Your task to perform on an android device: Add macbook pro to the cart on ebay.com Image 0: 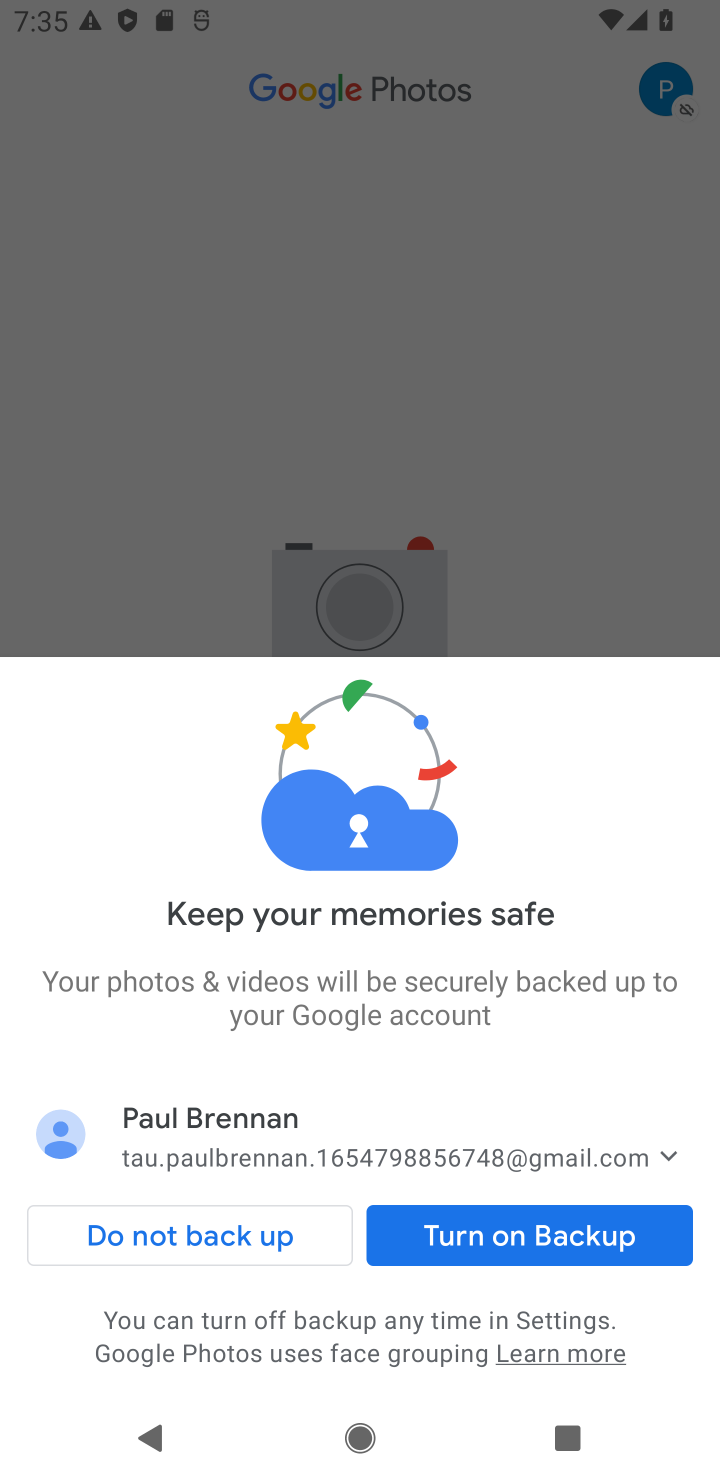
Step 0: press home button
Your task to perform on an android device: Add macbook pro to the cart on ebay.com Image 1: 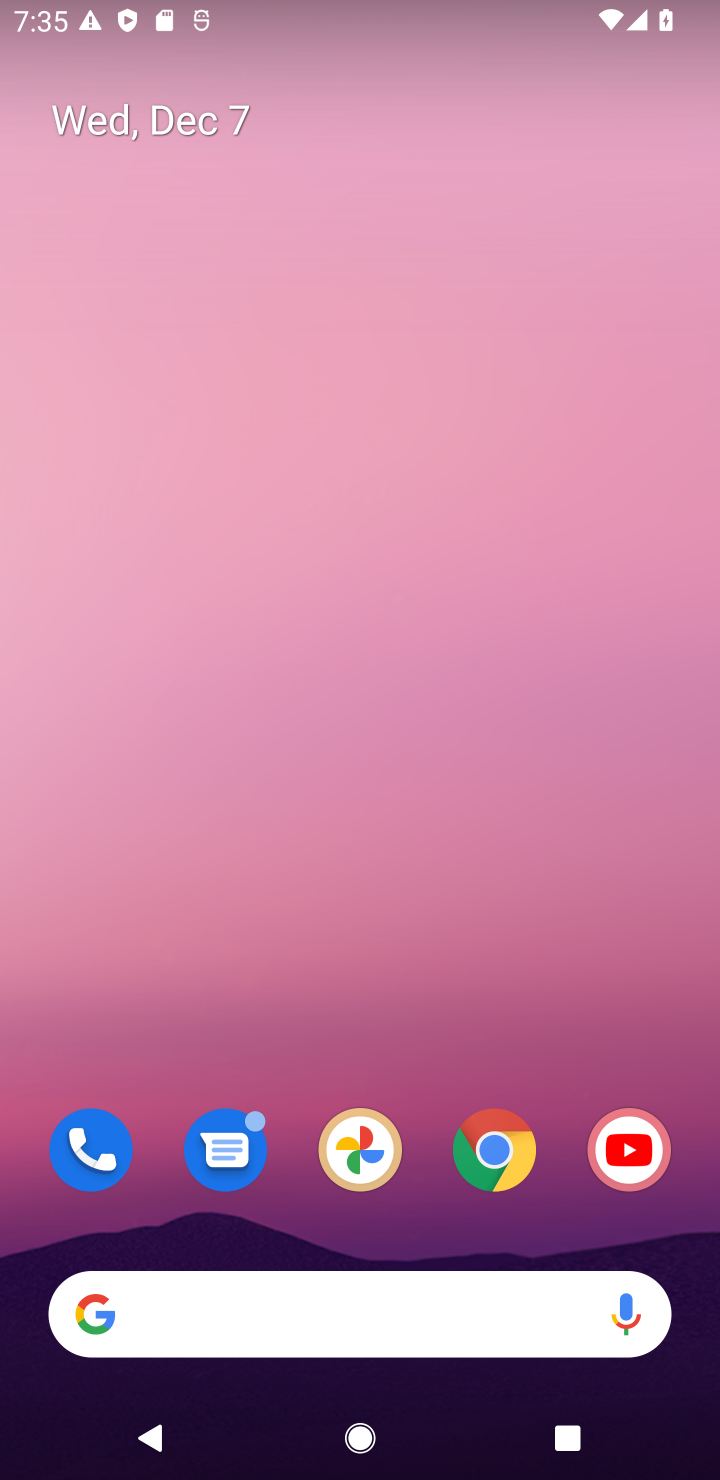
Step 1: click (494, 1122)
Your task to perform on an android device: Add macbook pro to the cart on ebay.com Image 2: 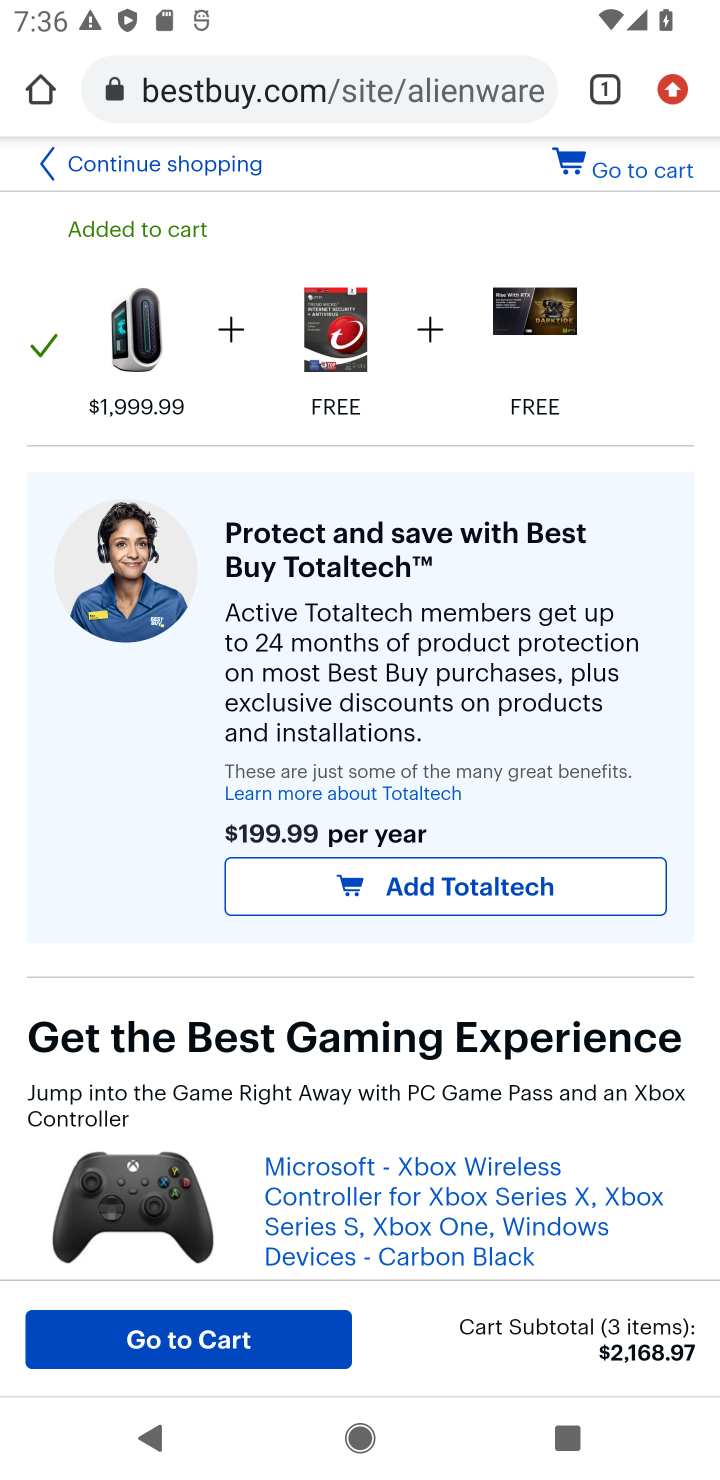
Step 2: click (367, 90)
Your task to perform on an android device: Add macbook pro to the cart on ebay.com Image 3: 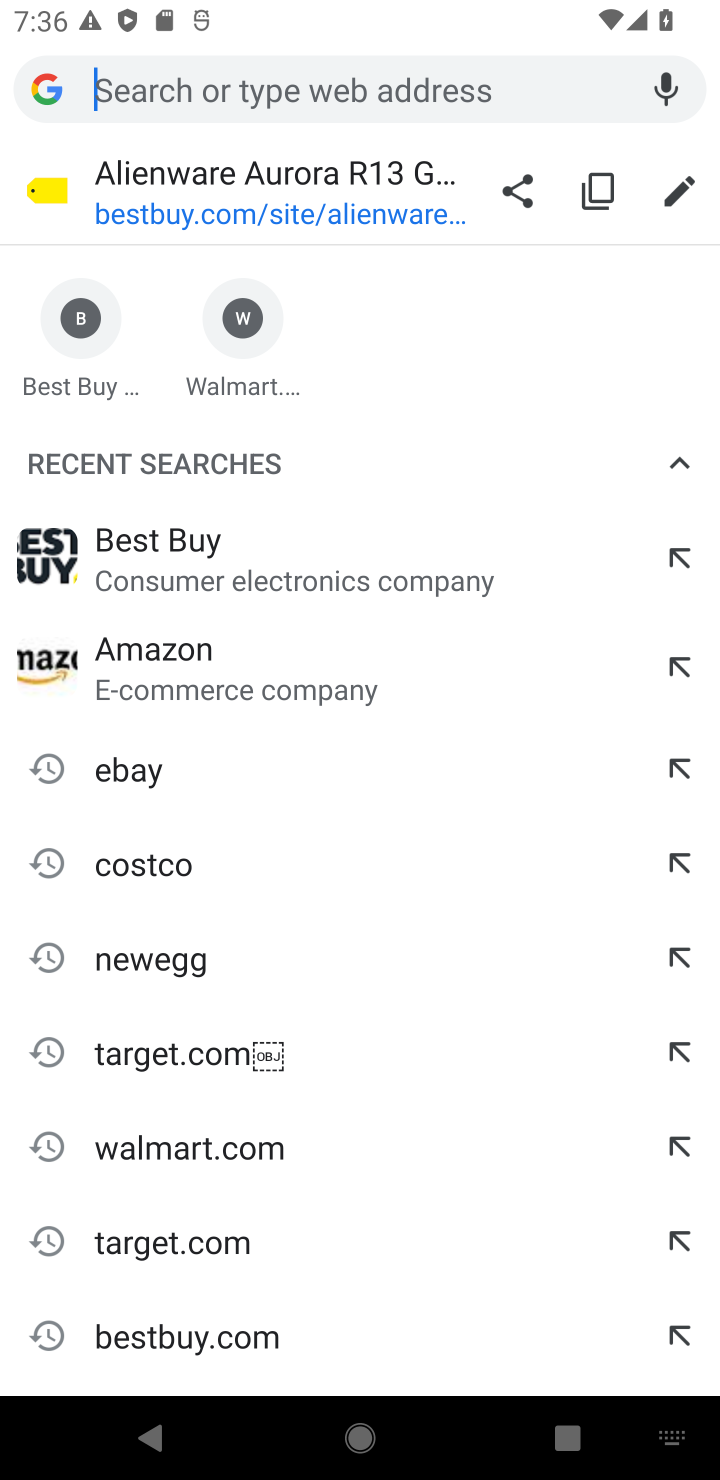
Step 3: click (144, 775)
Your task to perform on an android device: Add macbook pro to the cart on ebay.com Image 4: 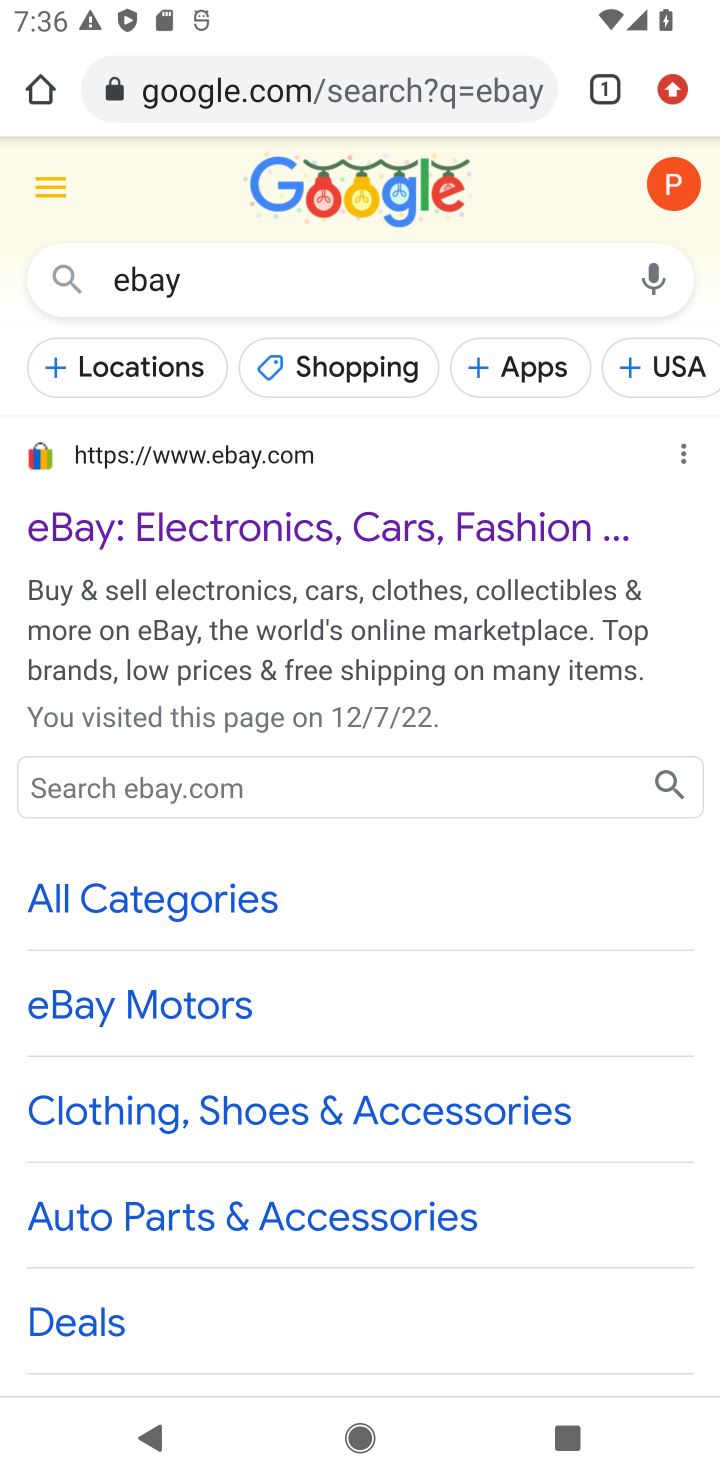
Step 4: click (178, 523)
Your task to perform on an android device: Add macbook pro to the cart on ebay.com Image 5: 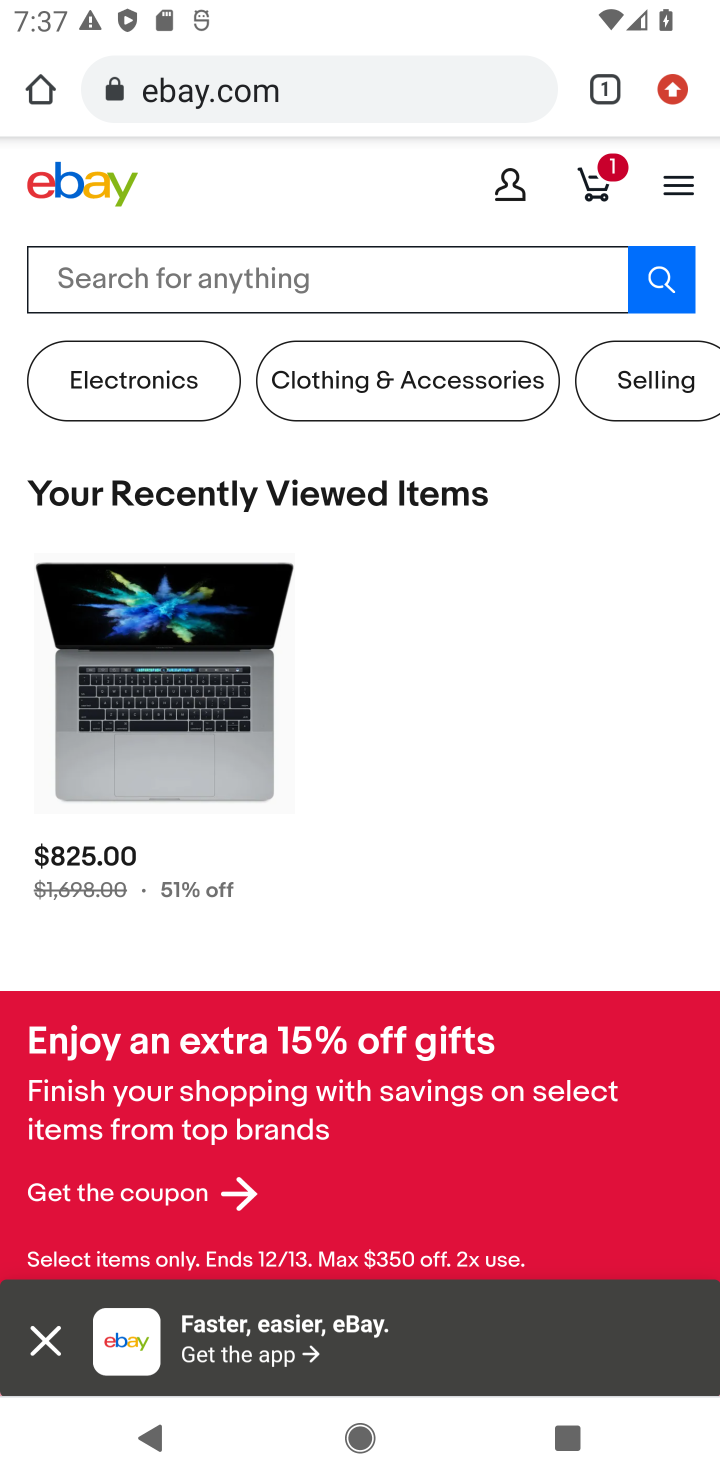
Step 5: click (427, 281)
Your task to perform on an android device: Add macbook pro to the cart on ebay.com Image 6: 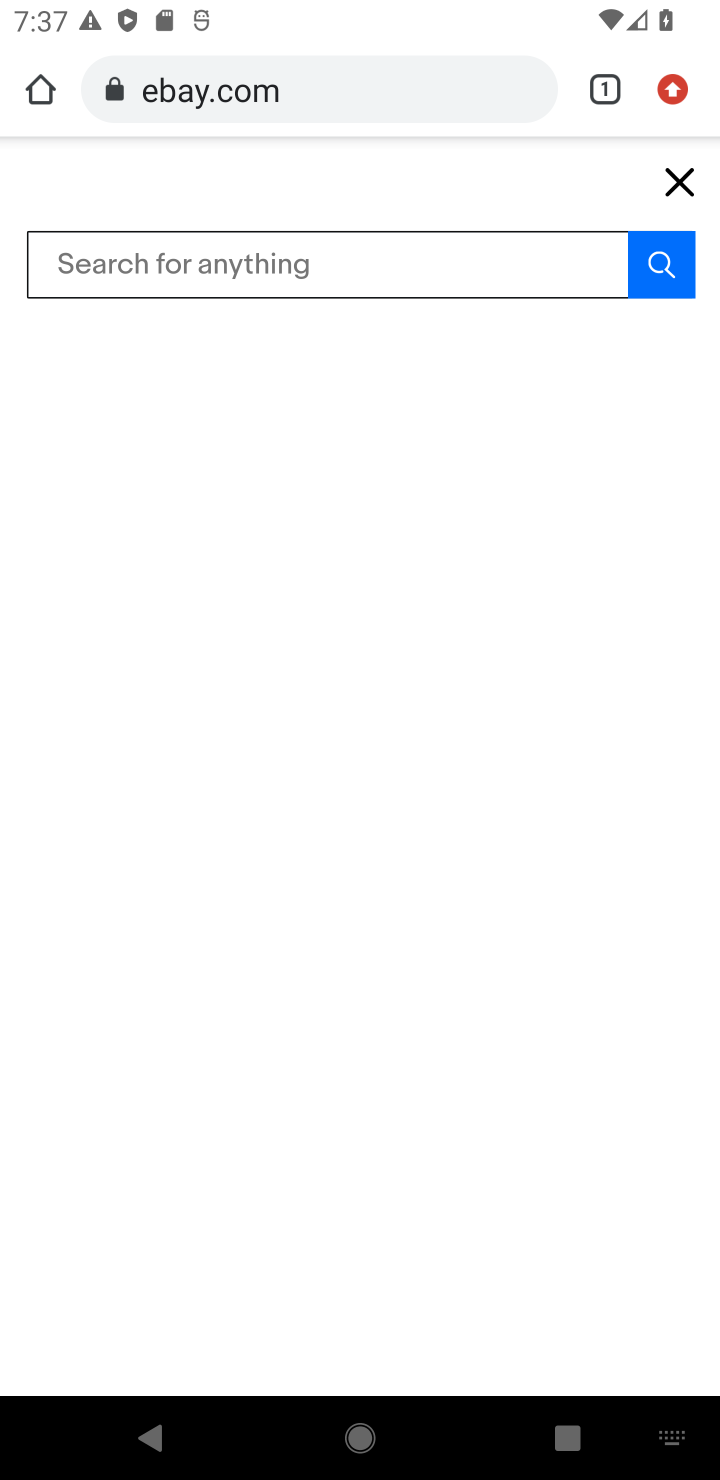
Step 6: type "macbook pro"
Your task to perform on an android device: Add macbook pro to the cart on ebay.com Image 7: 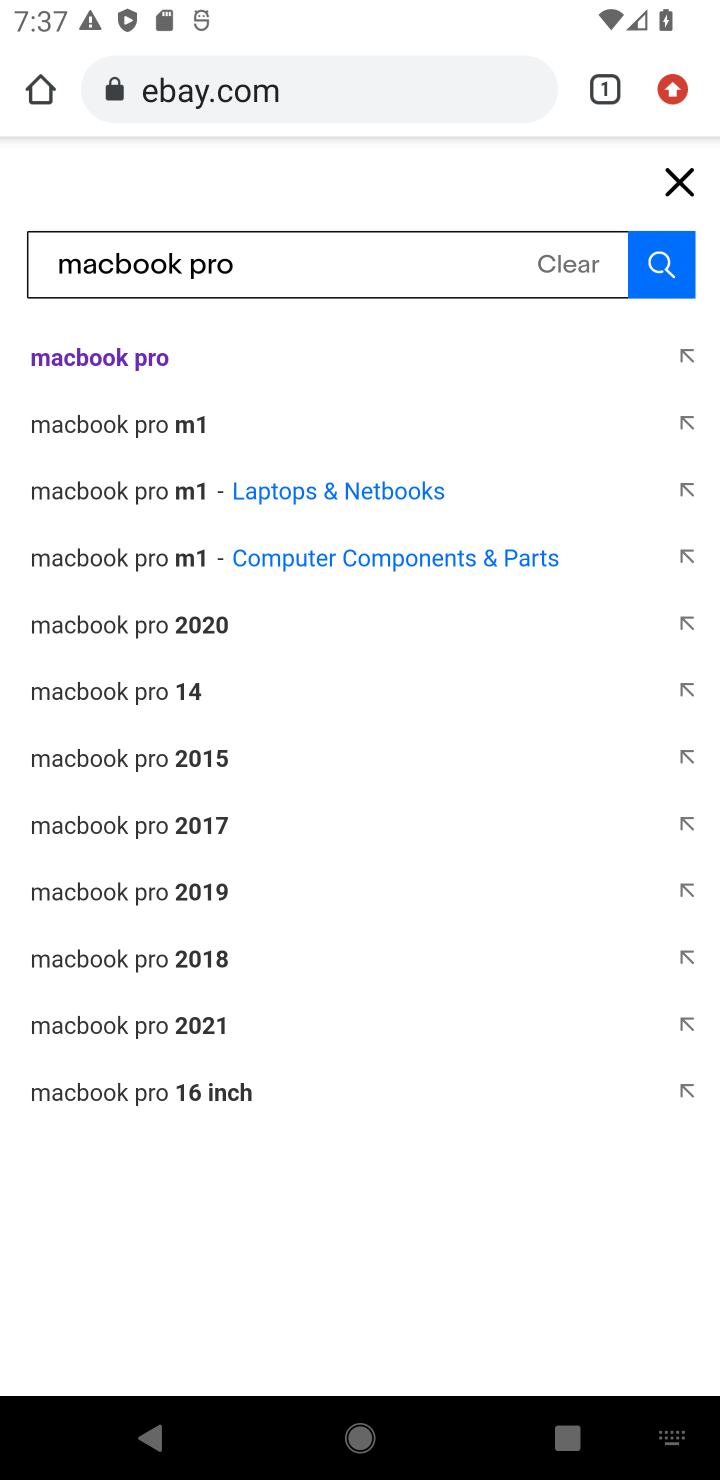
Step 7: click (105, 366)
Your task to perform on an android device: Add macbook pro to the cart on ebay.com Image 8: 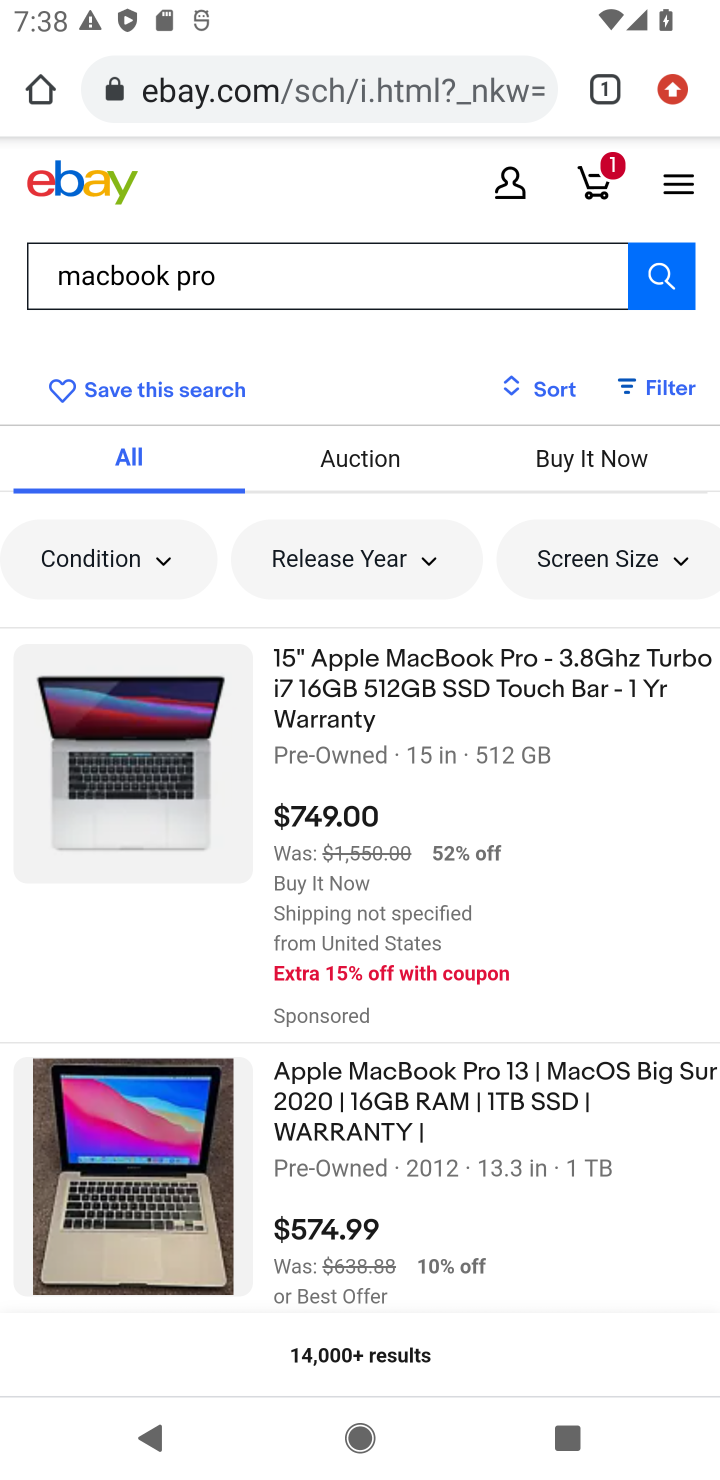
Step 8: click (166, 810)
Your task to perform on an android device: Add macbook pro to the cart on ebay.com Image 9: 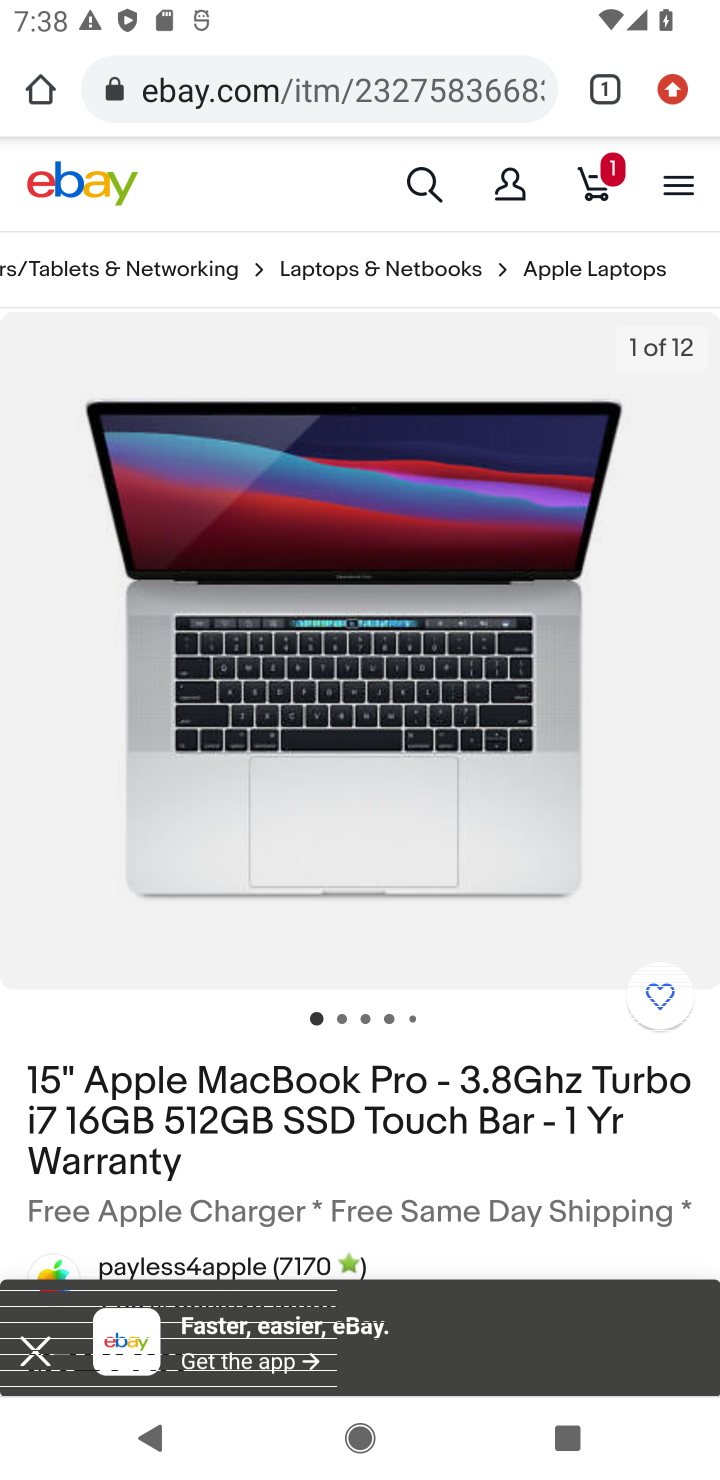
Step 9: drag from (436, 1214) to (496, 318)
Your task to perform on an android device: Add macbook pro to the cart on ebay.com Image 10: 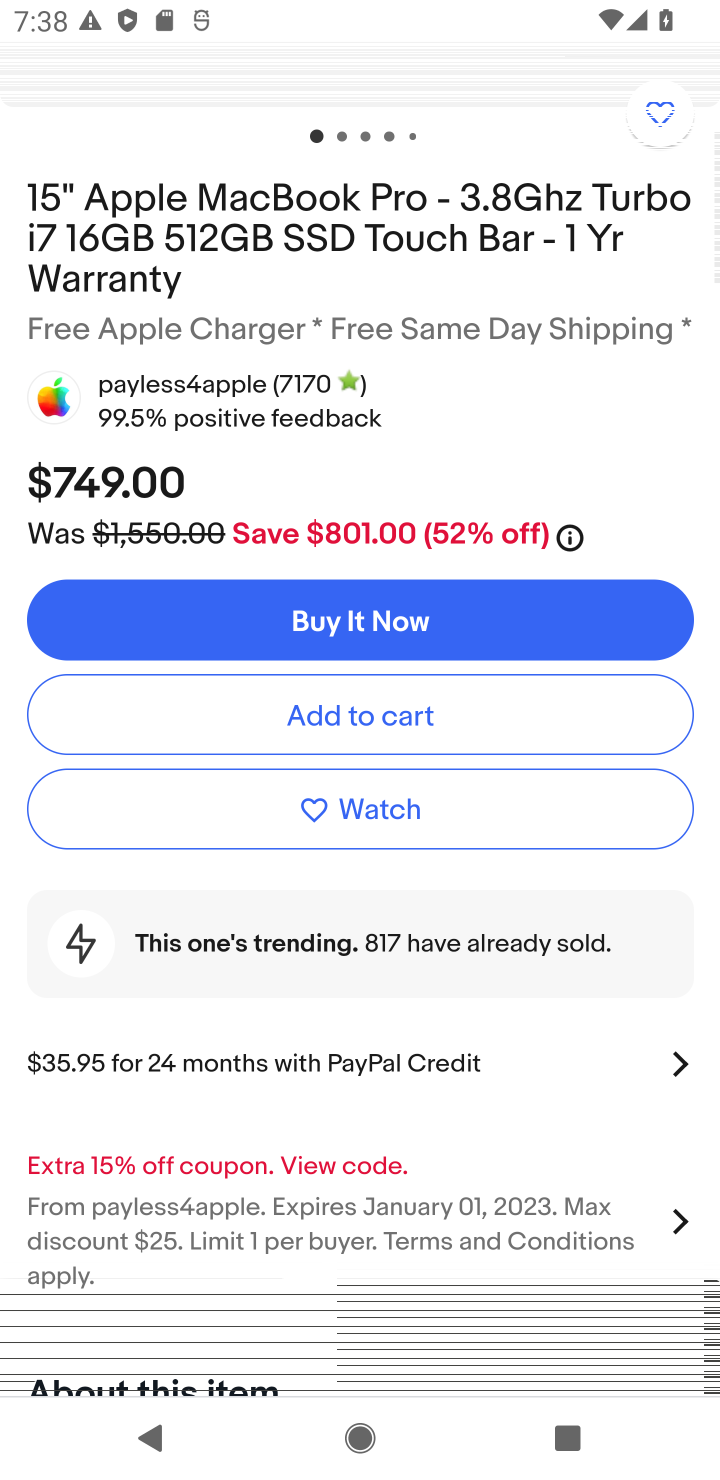
Step 10: click (377, 723)
Your task to perform on an android device: Add macbook pro to the cart on ebay.com Image 11: 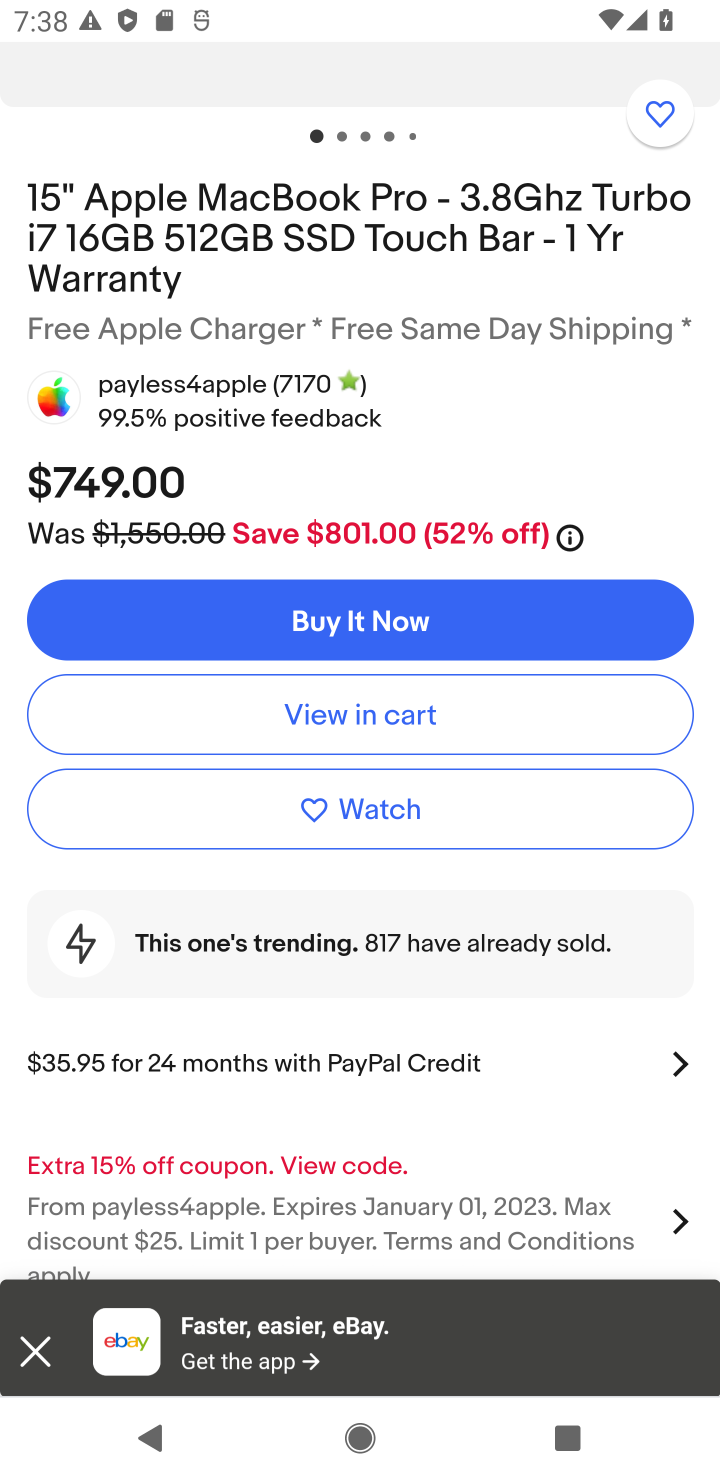
Step 11: click (377, 723)
Your task to perform on an android device: Add macbook pro to the cart on ebay.com Image 12: 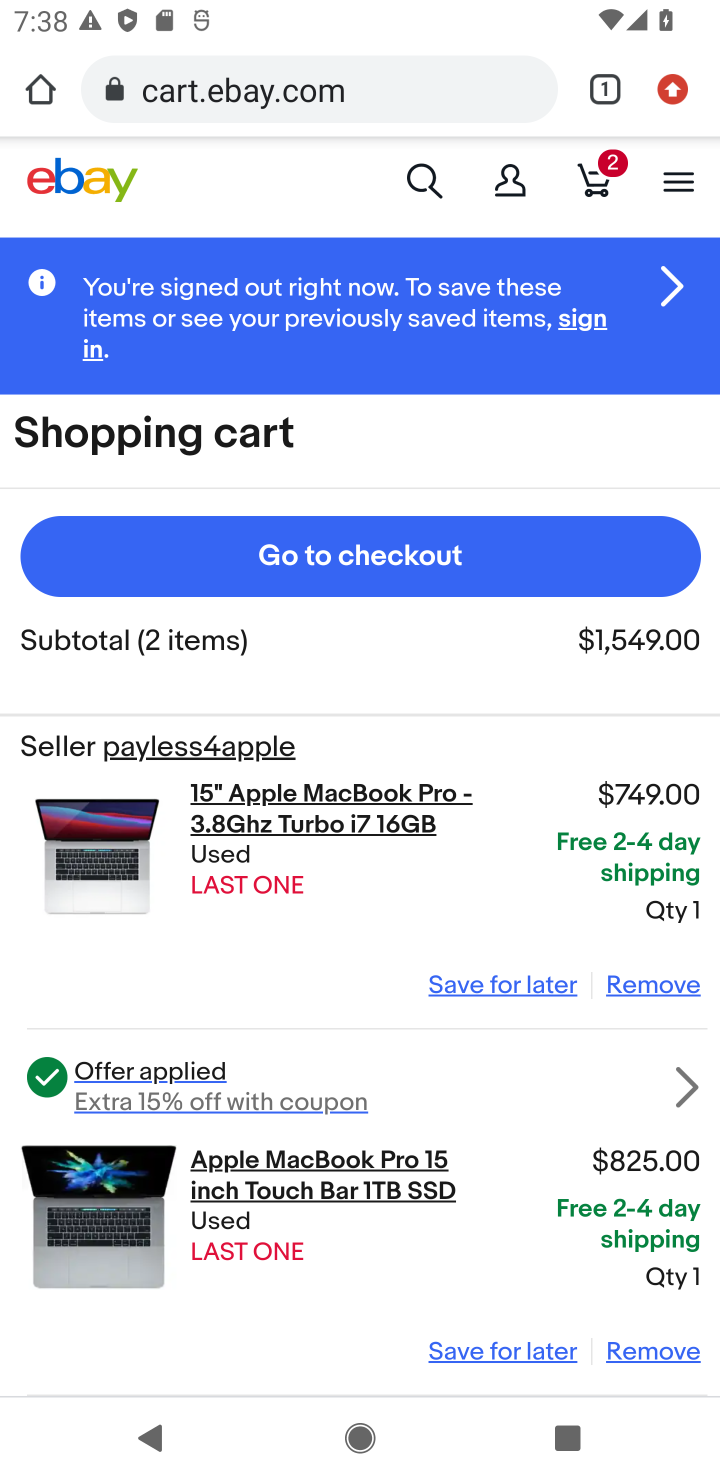
Step 12: task complete